Your task to perform on an android device: toggle show notifications on the lock screen Image 0: 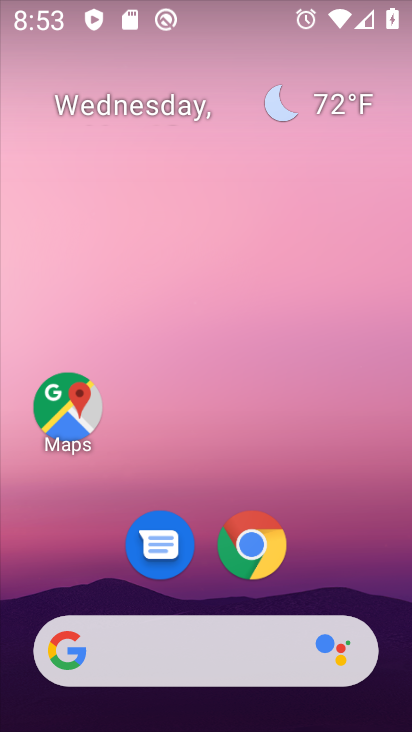
Step 0: drag from (328, 623) to (168, 249)
Your task to perform on an android device: toggle show notifications on the lock screen Image 1: 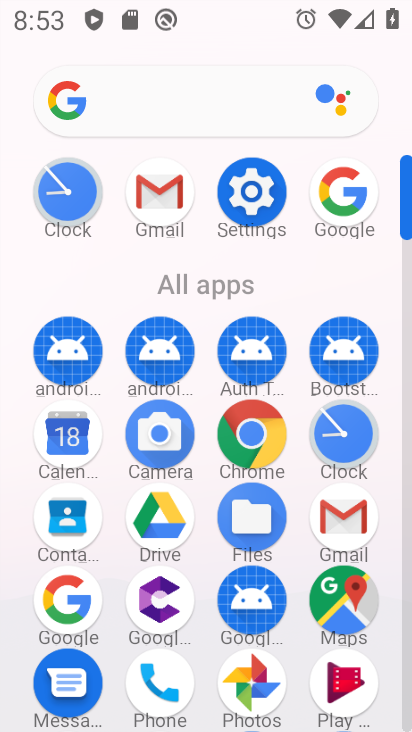
Step 1: click (243, 179)
Your task to perform on an android device: toggle show notifications on the lock screen Image 2: 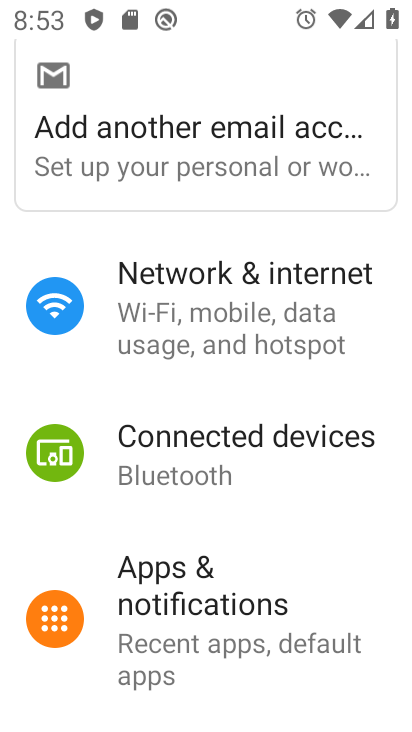
Step 2: click (199, 621)
Your task to perform on an android device: toggle show notifications on the lock screen Image 3: 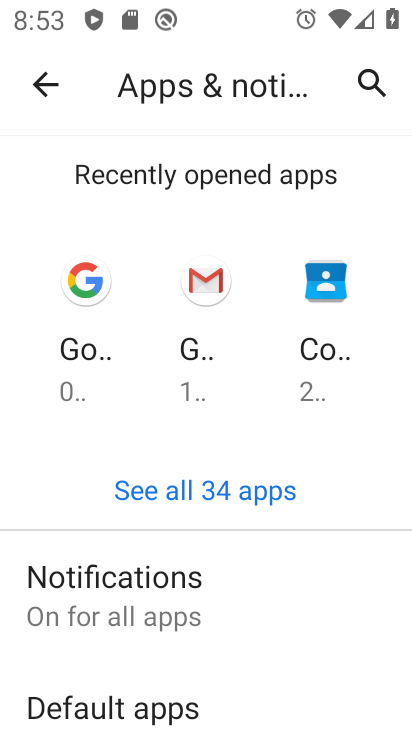
Step 3: click (91, 605)
Your task to perform on an android device: toggle show notifications on the lock screen Image 4: 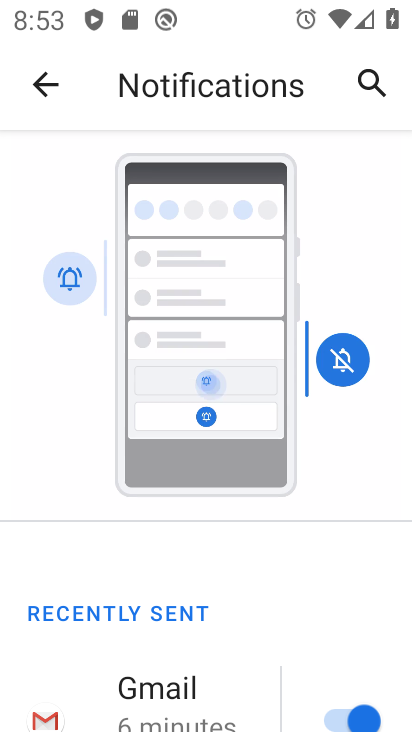
Step 4: drag from (216, 491) to (169, 128)
Your task to perform on an android device: toggle show notifications on the lock screen Image 5: 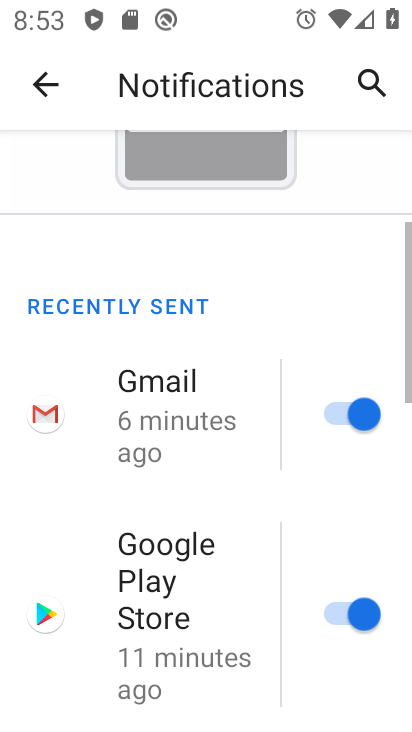
Step 5: drag from (228, 508) to (194, 57)
Your task to perform on an android device: toggle show notifications on the lock screen Image 6: 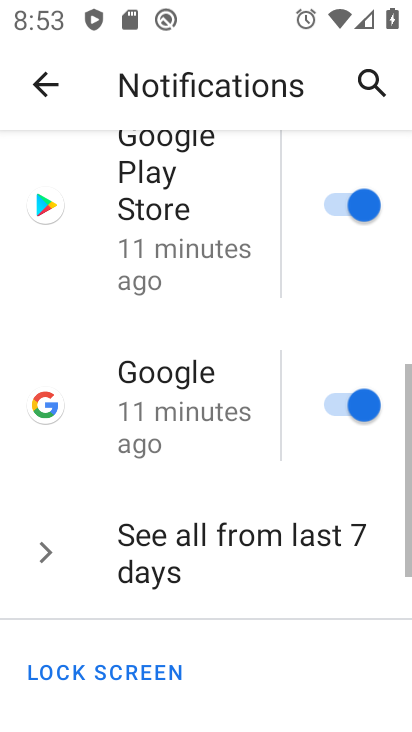
Step 6: drag from (243, 486) to (206, 130)
Your task to perform on an android device: toggle show notifications on the lock screen Image 7: 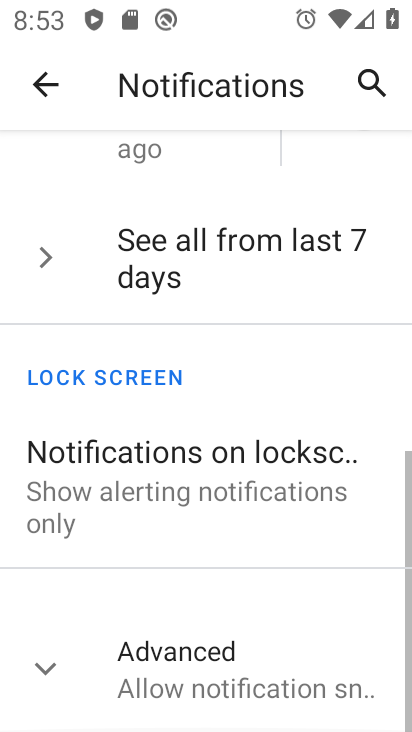
Step 7: drag from (227, 518) to (201, 129)
Your task to perform on an android device: toggle show notifications on the lock screen Image 8: 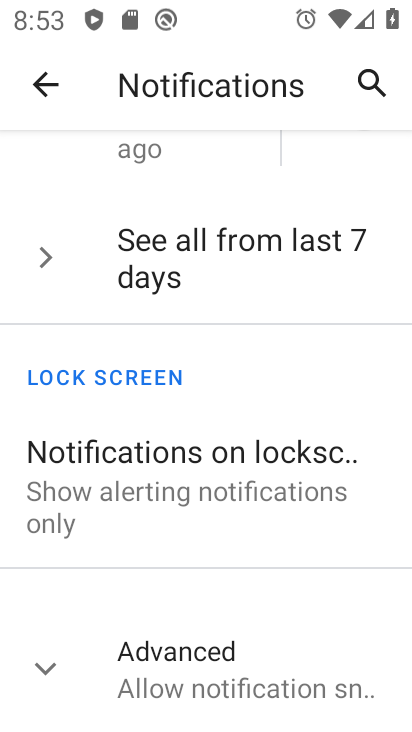
Step 8: click (148, 473)
Your task to perform on an android device: toggle show notifications on the lock screen Image 9: 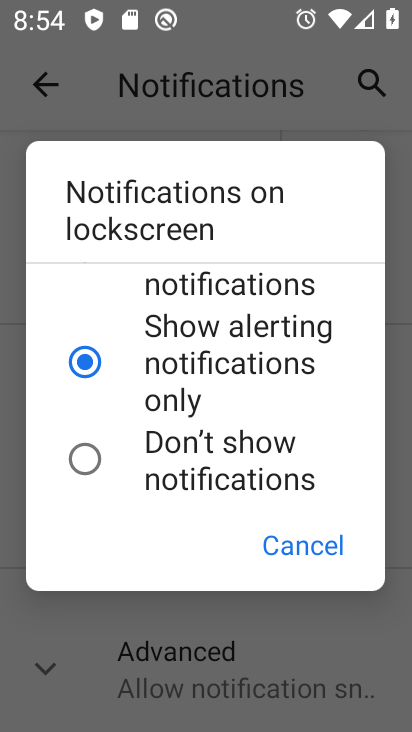
Step 9: drag from (144, 353) to (243, 583)
Your task to perform on an android device: toggle show notifications on the lock screen Image 10: 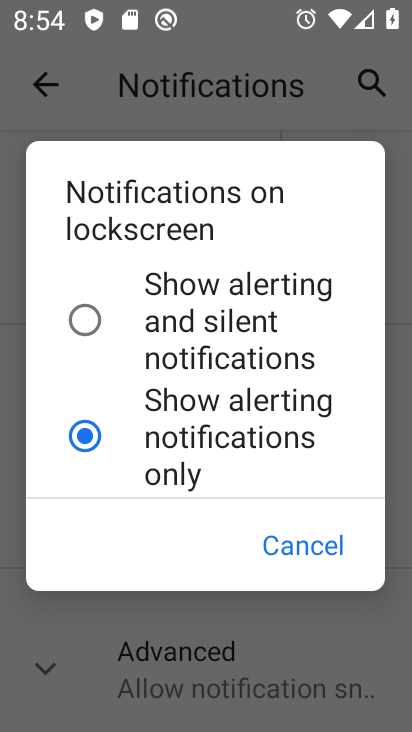
Step 10: click (73, 302)
Your task to perform on an android device: toggle show notifications on the lock screen Image 11: 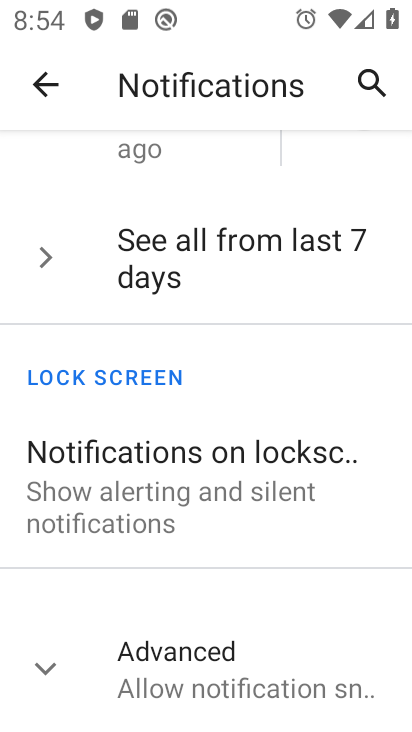
Step 11: task complete